Your task to perform on an android device: Open Google Image 0: 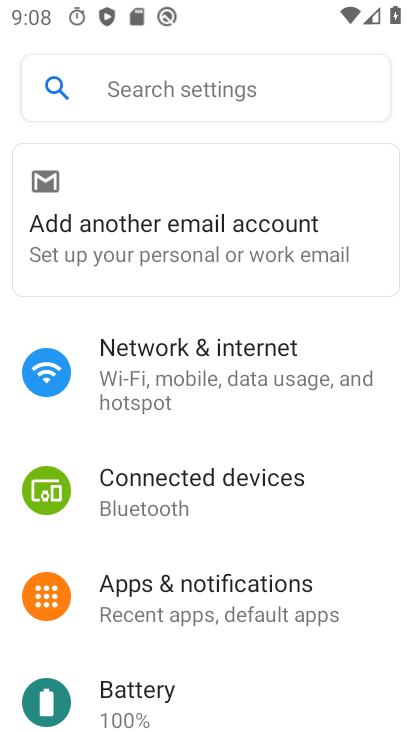
Step 0: press home button
Your task to perform on an android device: Open Google Image 1: 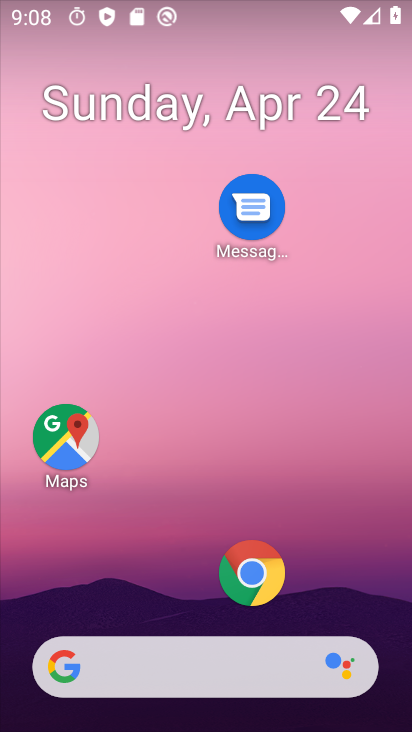
Step 1: click (106, 674)
Your task to perform on an android device: Open Google Image 2: 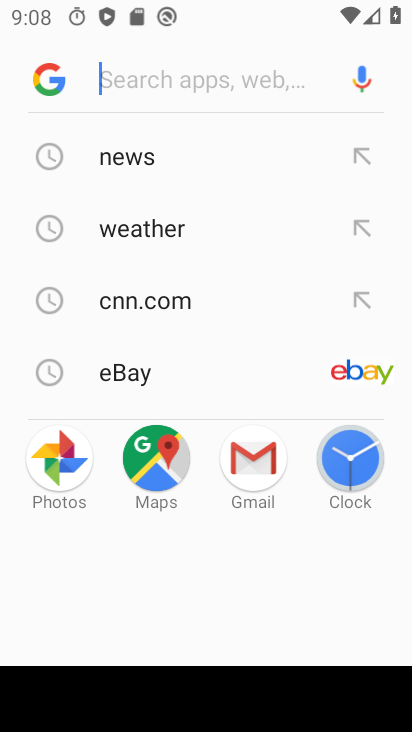
Step 2: click (54, 82)
Your task to perform on an android device: Open Google Image 3: 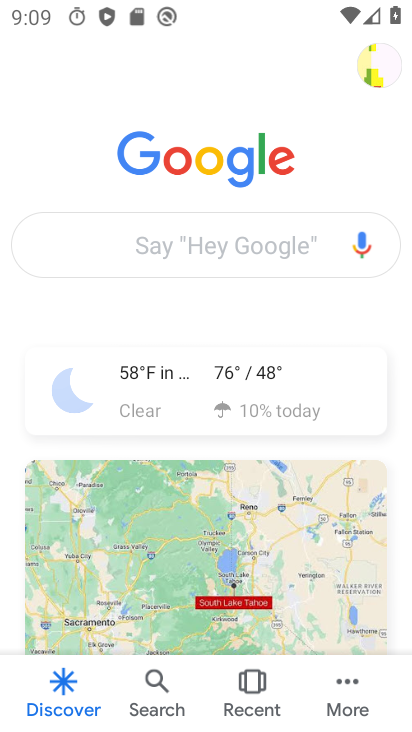
Step 3: task complete